Your task to perform on an android device: Open the phone app and click the voicemail tab. Image 0: 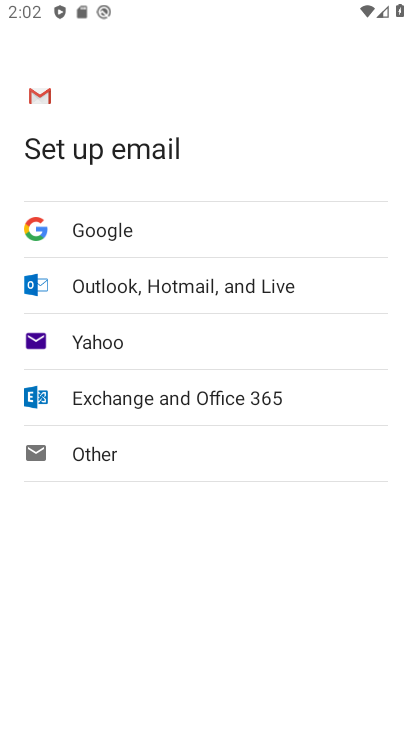
Step 0: press home button
Your task to perform on an android device: Open the phone app and click the voicemail tab. Image 1: 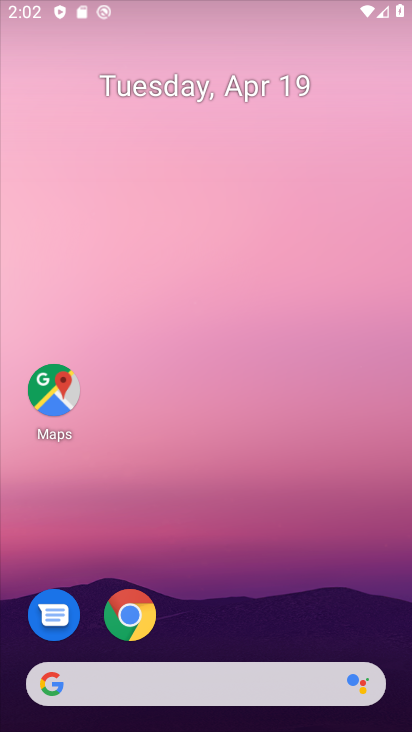
Step 1: drag from (187, 560) to (307, 73)
Your task to perform on an android device: Open the phone app and click the voicemail tab. Image 2: 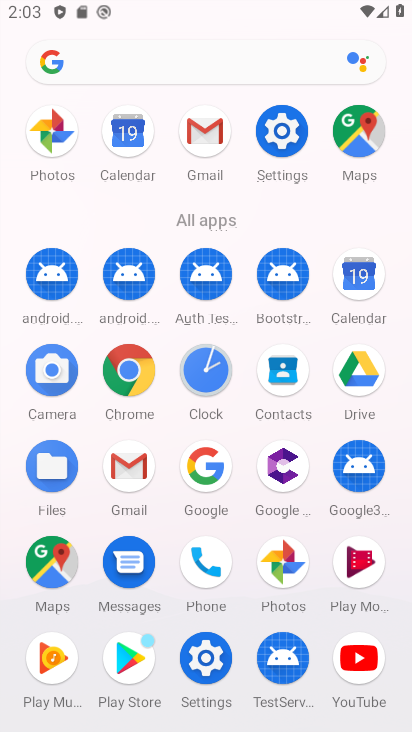
Step 2: drag from (227, 638) to (221, 234)
Your task to perform on an android device: Open the phone app and click the voicemail tab. Image 3: 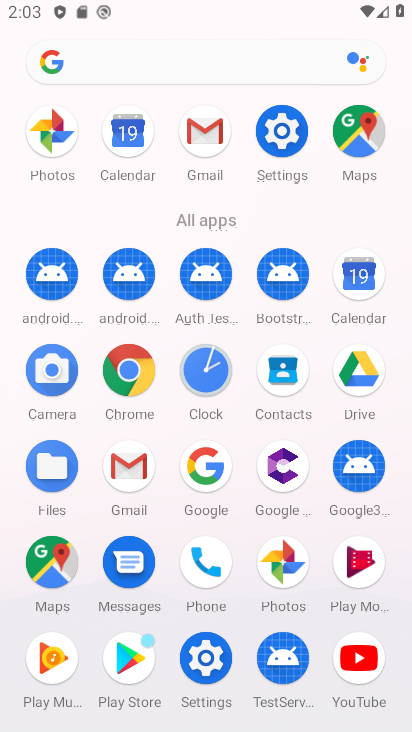
Step 3: click (203, 555)
Your task to perform on an android device: Open the phone app and click the voicemail tab. Image 4: 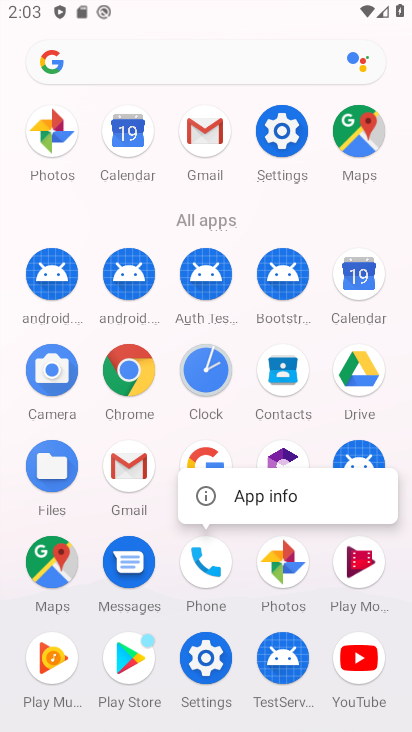
Step 4: click (234, 496)
Your task to perform on an android device: Open the phone app and click the voicemail tab. Image 5: 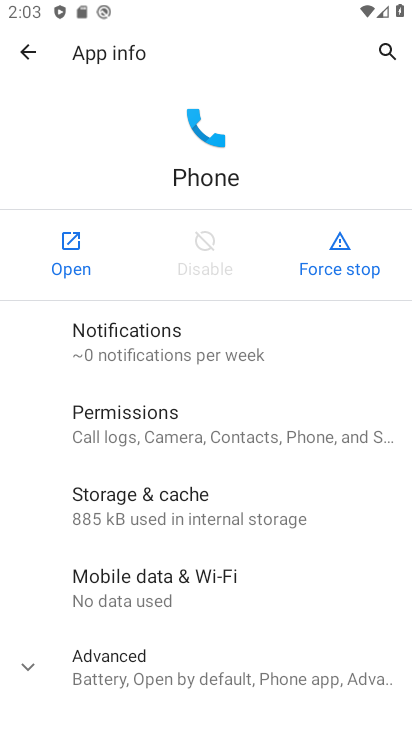
Step 5: click (66, 259)
Your task to perform on an android device: Open the phone app and click the voicemail tab. Image 6: 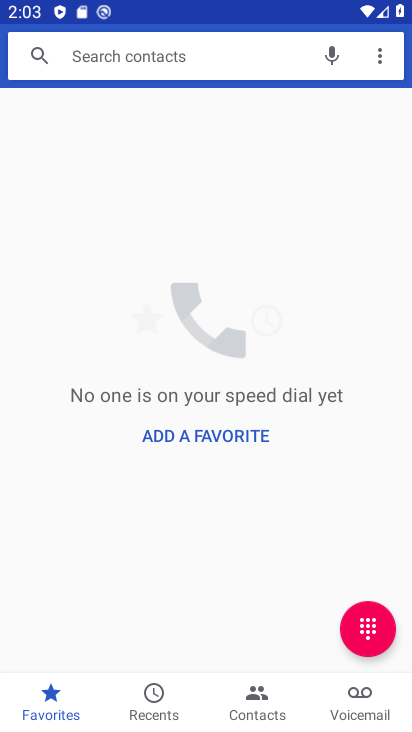
Step 6: click (358, 696)
Your task to perform on an android device: Open the phone app and click the voicemail tab. Image 7: 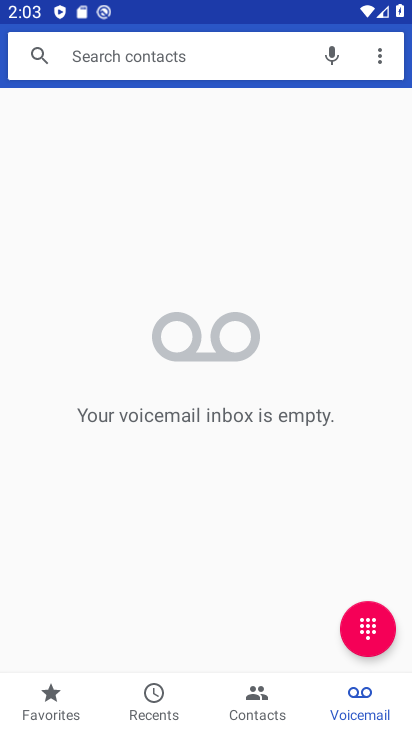
Step 7: task complete